Your task to perform on an android device: turn off smart reply in the gmail app Image 0: 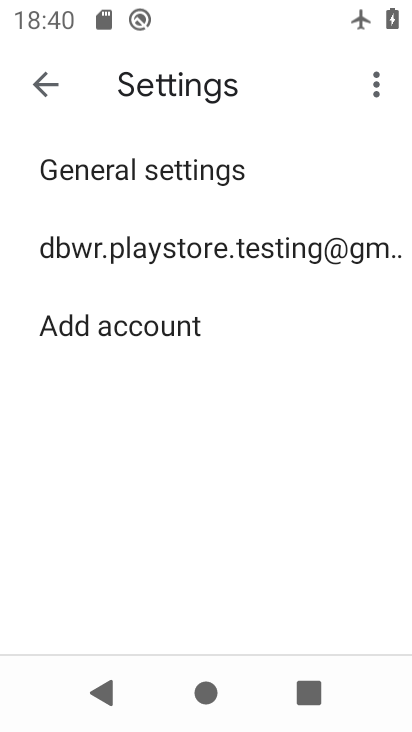
Step 0: click (136, 240)
Your task to perform on an android device: turn off smart reply in the gmail app Image 1: 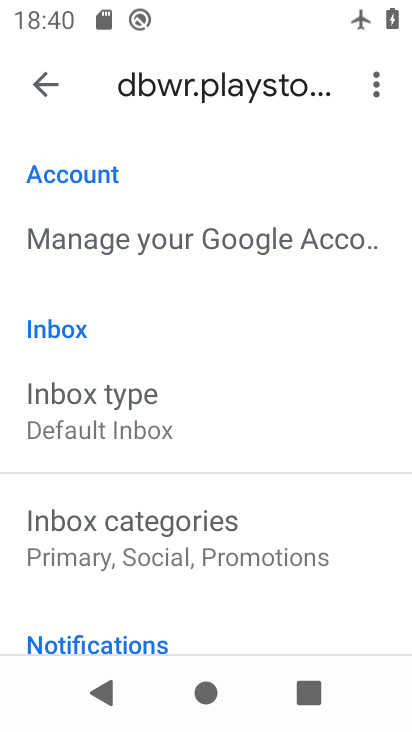
Step 1: drag from (276, 609) to (203, 248)
Your task to perform on an android device: turn off smart reply in the gmail app Image 2: 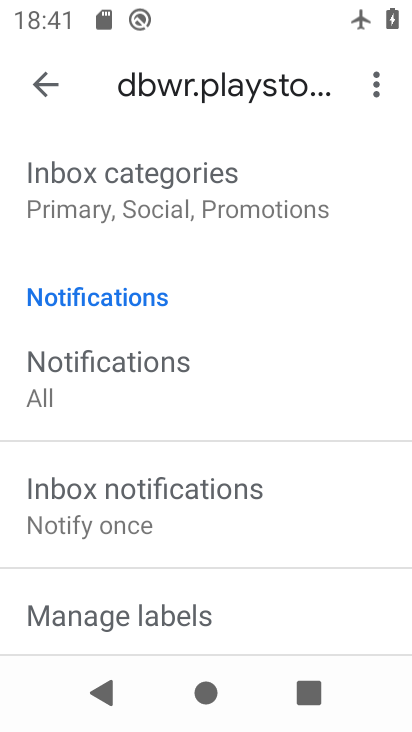
Step 2: drag from (232, 517) to (188, 185)
Your task to perform on an android device: turn off smart reply in the gmail app Image 3: 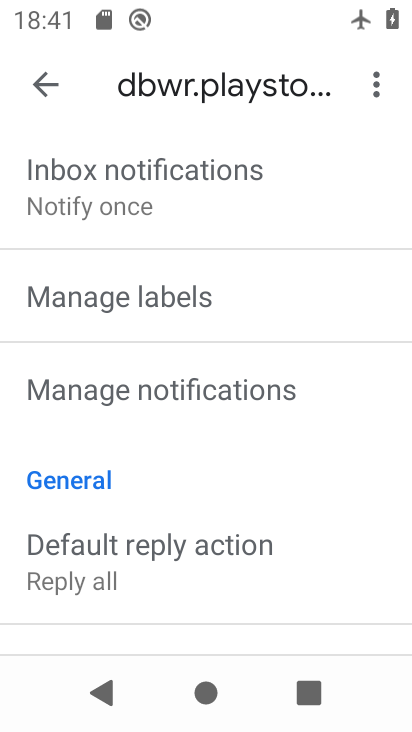
Step 3: drag from (208, 486) to (182, 120)
Your task to perform on an android device: turn off smart reply in the gmail app Image 4: 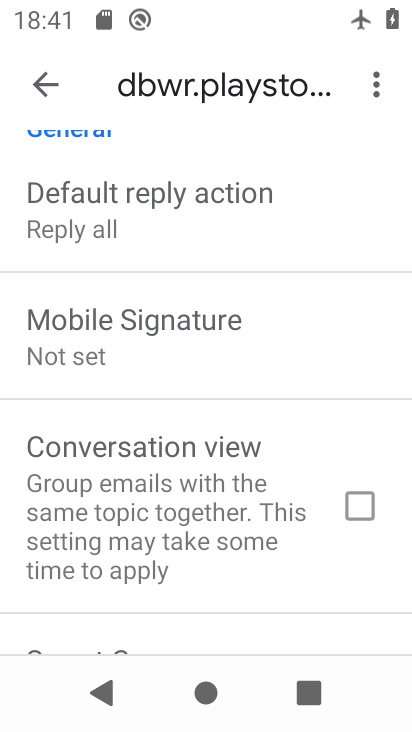
Step 4: drag from (246, 447) to (217, 108)
Your task to perform on an android device: turn off smart reply in the gmail app Image 5: 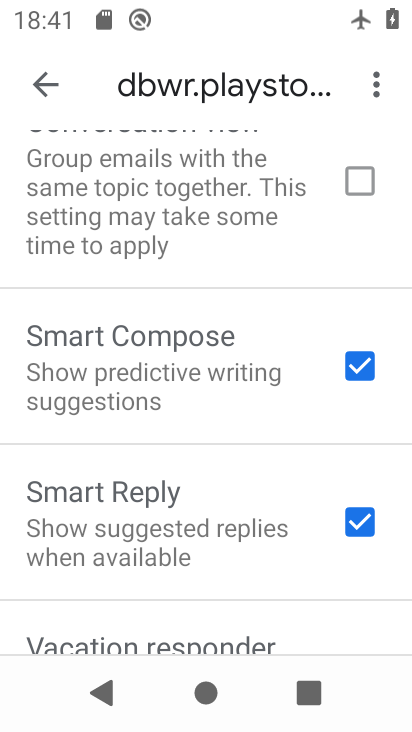
Step 5: click (365, 522)
Your task to perform on an android device: turn off smart reply in the gmail app Image 6: 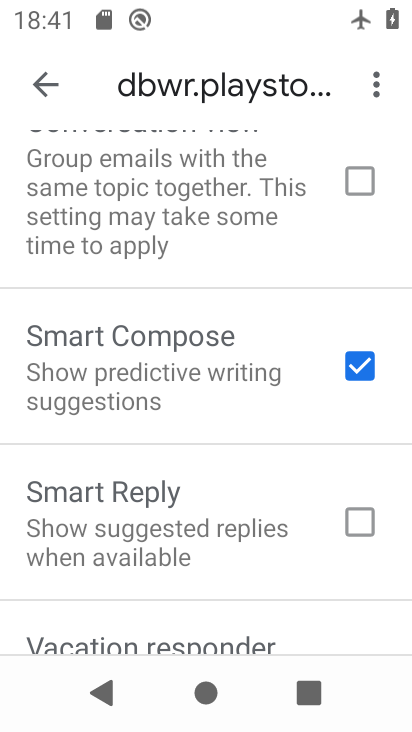
Step 6: task complete